Your task to perform on an android device: change alarm snooze length Image 0: 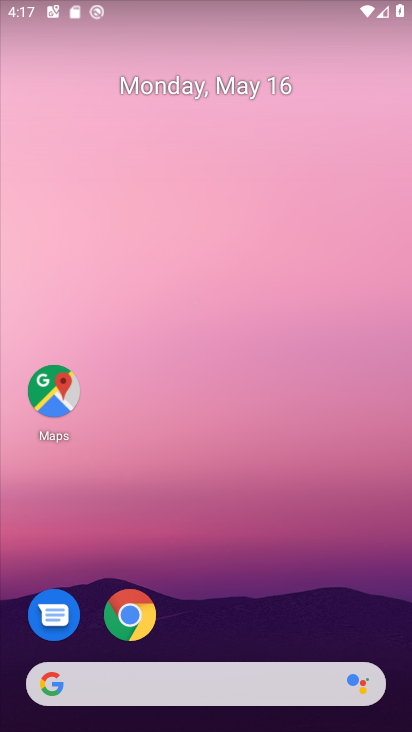
Step 0: drag from (241, 611) to (286, 37)
Your task to perform on an android device: change alarm snooze length Image 1: 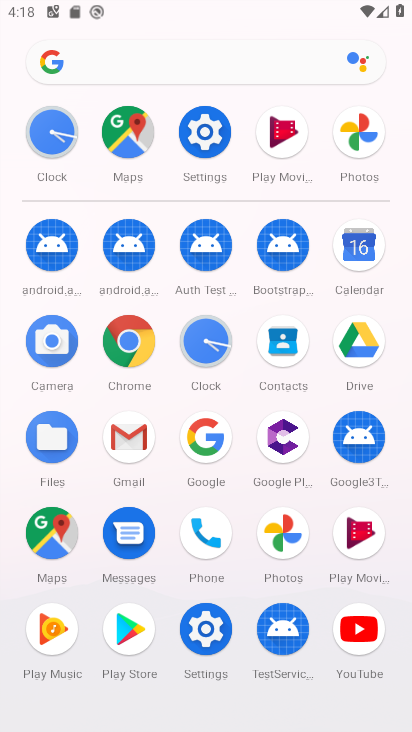
Step 1: click (210, 346)
Your task to perform on an android device: change alarm snooze length Image 2: 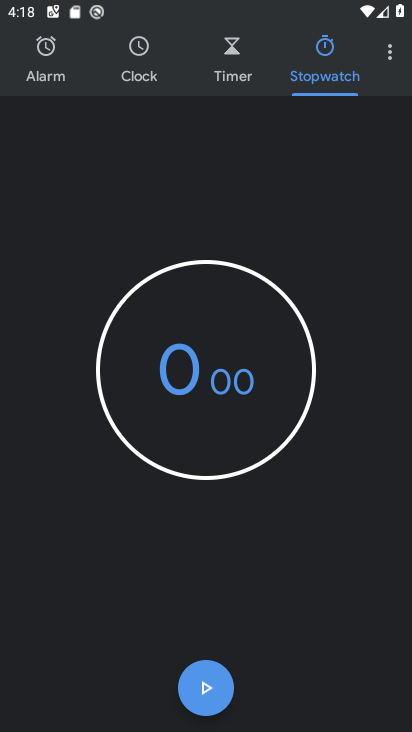
Step 2: click (392, 64)
Your task to perform on an android device: change alarm snooze length Image 3: 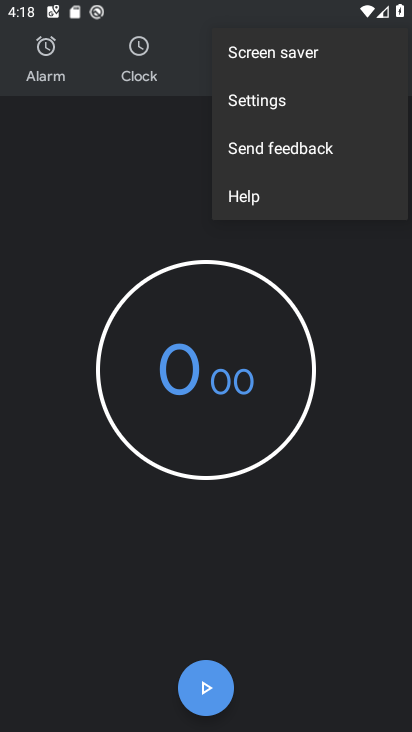
Step 3: click (297, 99)
Your task to perform on an android device: change alarm snooze length Image 4: 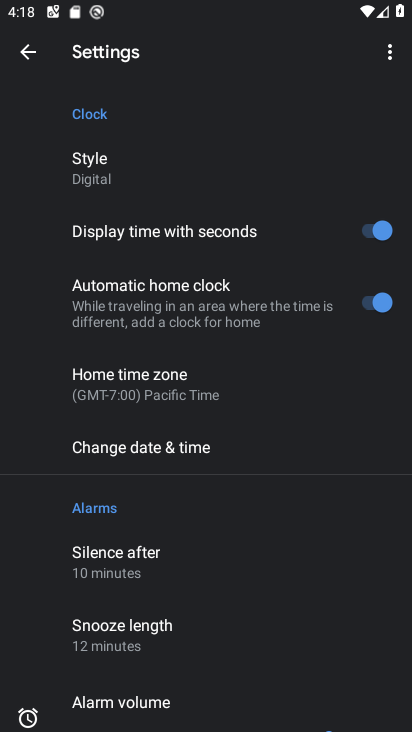
Step 4: click (130, 650)
Your task to perform on an android device: change alarm snooze length Image 5: 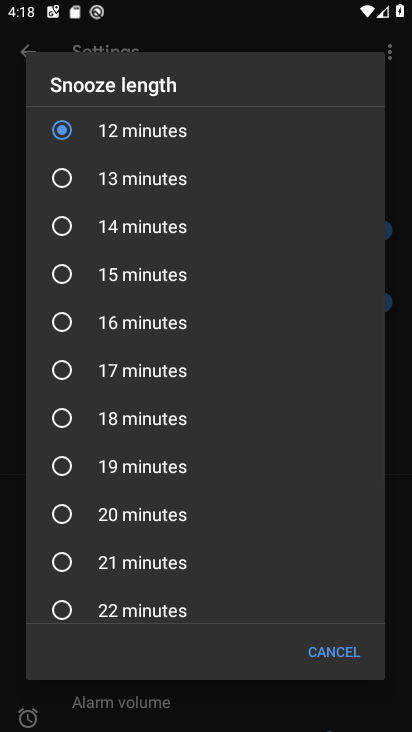
Step 5: click (70, 177)
Your task to perform on an android device: change alarm snooze length Image 6: 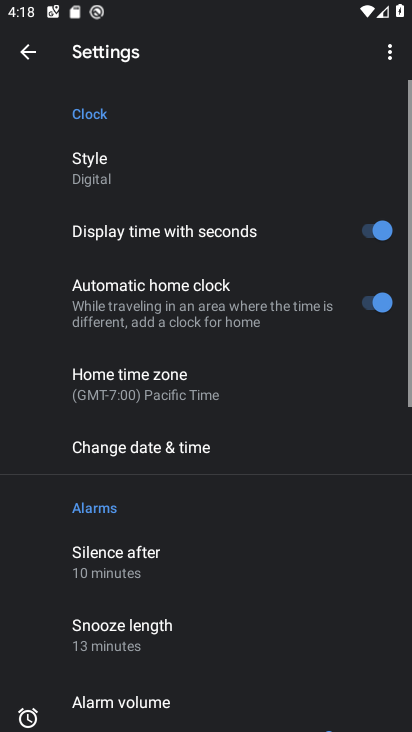
Step 6: task complete